Your task to perform on an android device: Open internet settings Image 0: 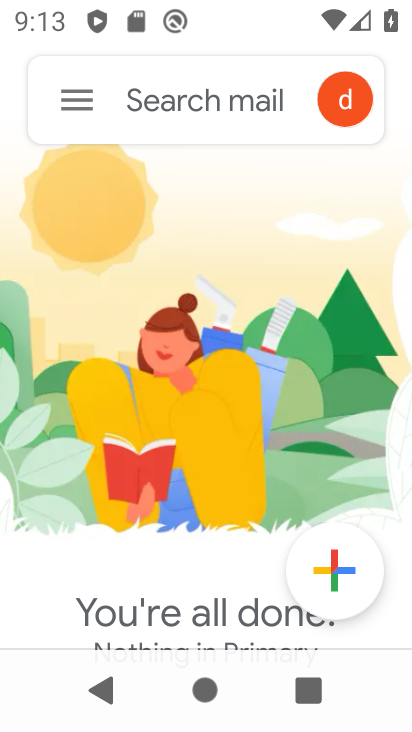
Step 0: press home button
Your task to perform on an android device: Open internet settings Image 1: 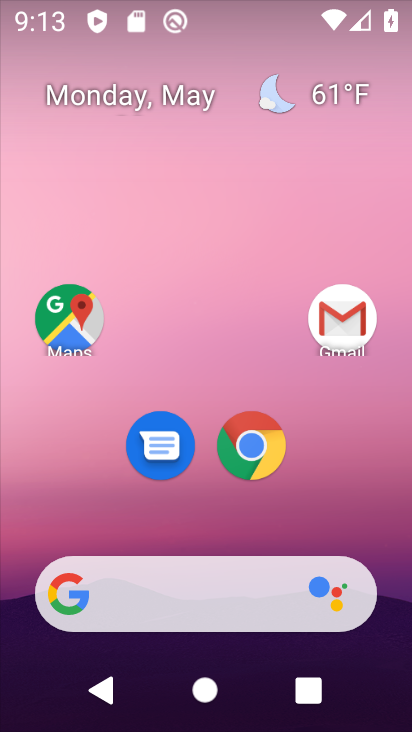
Step 1: drag from (382, 520) to (369, 107)
Your task to perform on an android device: Open internet settings Image 2: 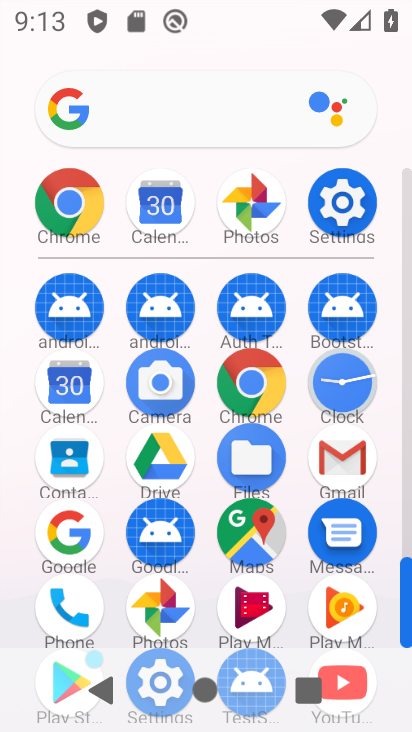
Step 2: click (358, 224)
Your task to perform on an android device: Open internet settings Image 3: 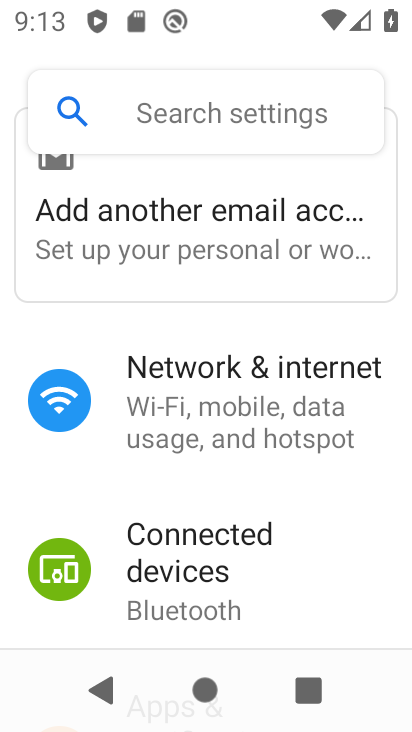
Step 3: drag from (358, 549) to (371, 413)
Your task to perform on an android device: Open internet settings Image 4: 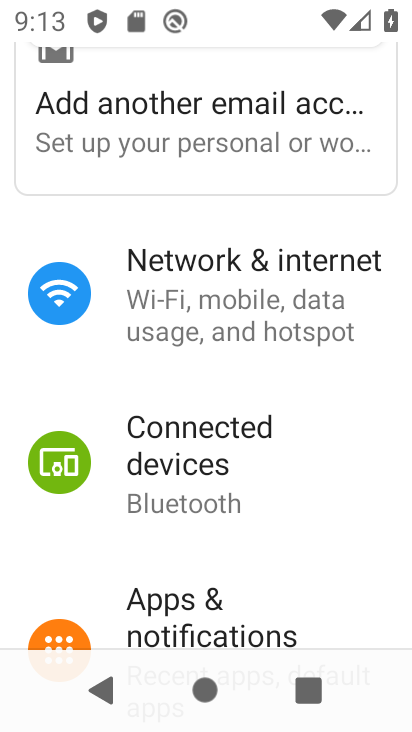
Step 4: drag from (366, 526) to (371, 419)
Your task to perform on an android device: Open internet settings Image 5: 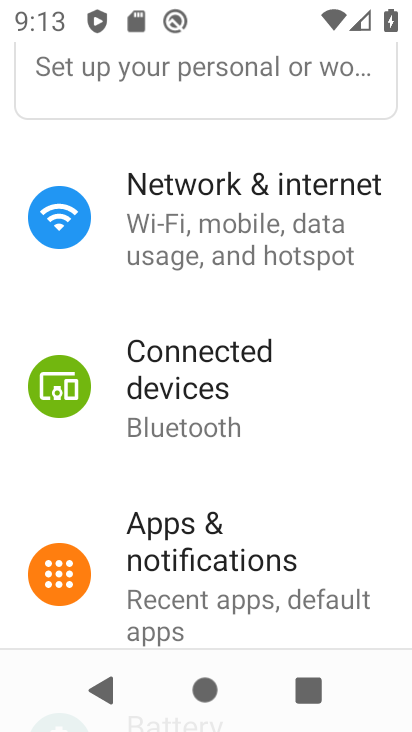
Step 5: drag from (364, 554) to (365, 429)
Your task to perform on an android device: Open internet settings Image 6: 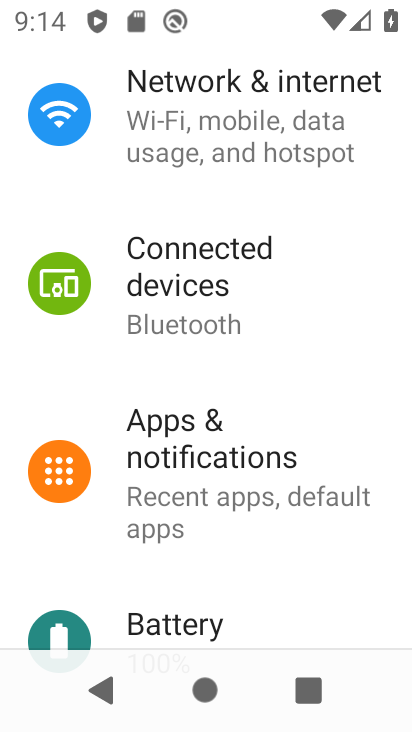
Step 6: drag from (372, 492) to (371, 368)
Your task to perform on an android device: Open internet settings Image 7: 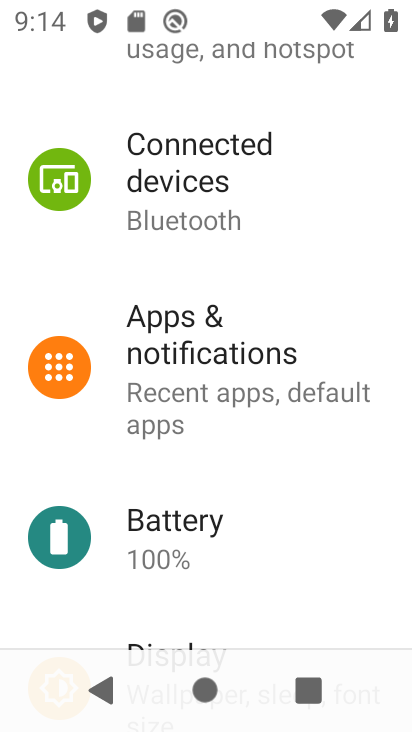
Step 7: drag from (382, 572) to (381, 420)
Your task to perform on an android device: Open internet settings Image 8: 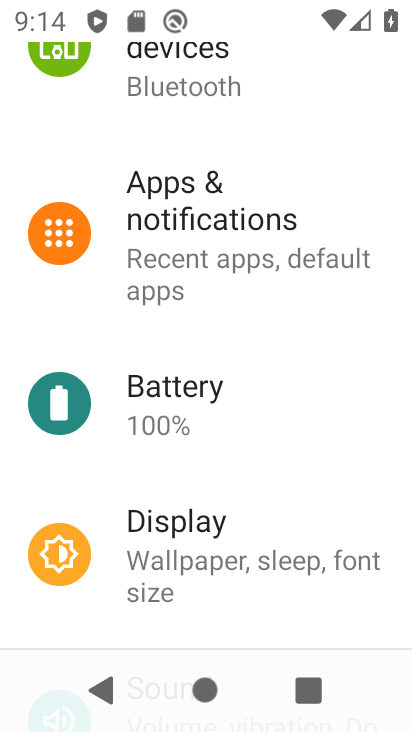
Step 8: drag from (358, 179) to (366, 307)
Your task to perform on an android device: Open internet settings Image 9: 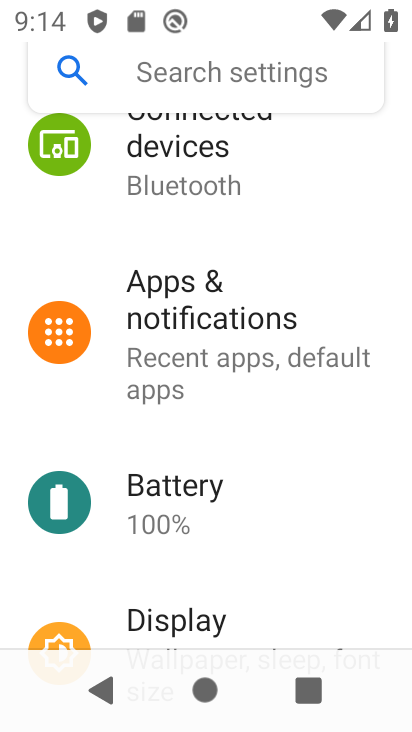
Step 9: drag from (351, 171) to (358, 323)
Your task to perform on an android device: Open internet settings Image 10: 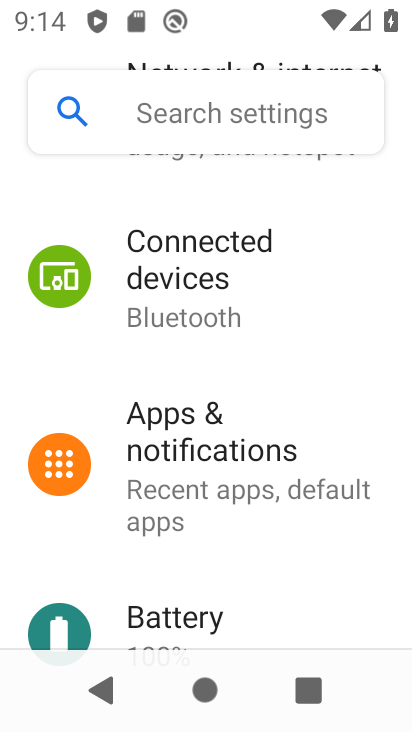
Step 10: drag from (352, 183) to (367, 393)
Your task to perform on an android device: Open internet settings Image 11: 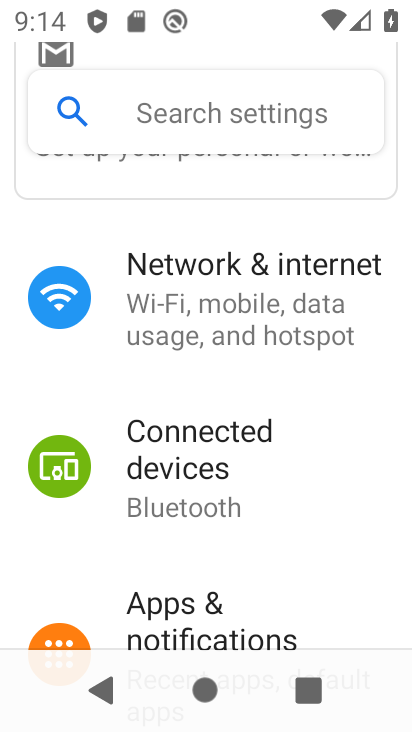
Step 11: click (335, 283)
Your task to perform on an android device: Open internet settings Image 12: 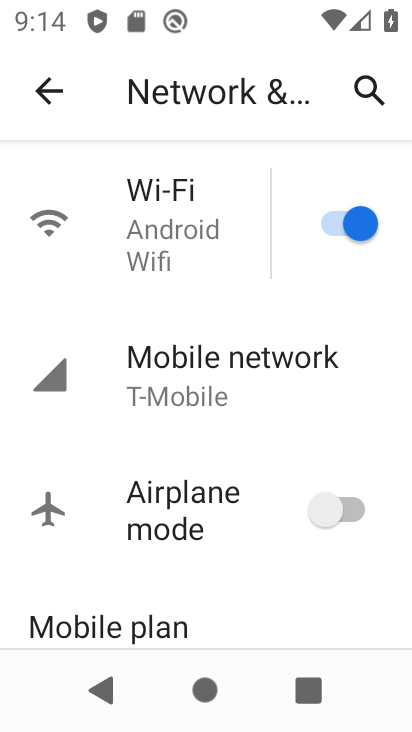
Step 12: task complete